Your task to perform on an android device: Search for Italian restaurants on Maps Image 0: 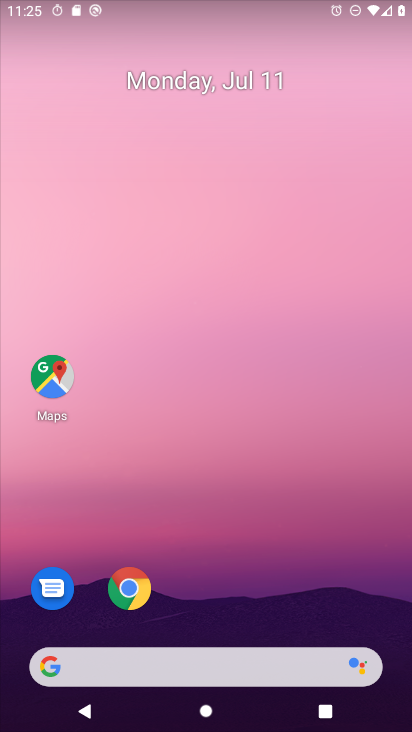
Step 0: click (61, 371)
Your task to perform on an android device: Search for Italian restaurants on Maps Image 1: 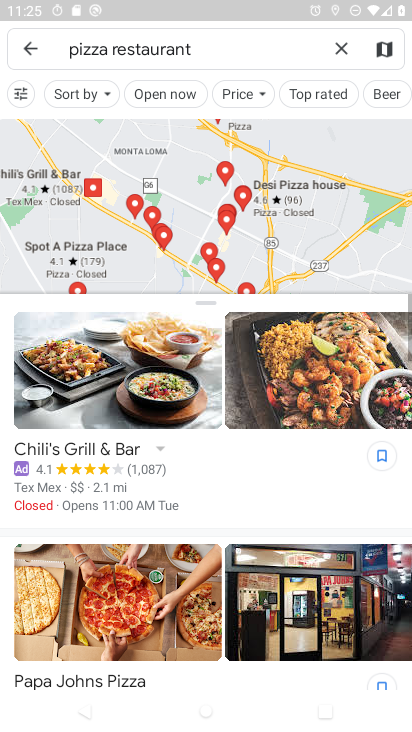
Step 1: click (340, 43)
Your task to perform on an android device: Search for Italian restaurants on Maps Image 2: 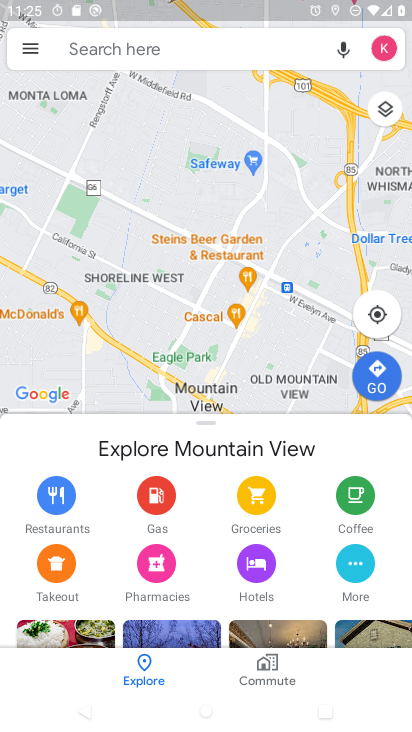
Step 2: click (135, 54)
Your task to perform on an android device: Search for Italian restaurants on Maps Image 3: 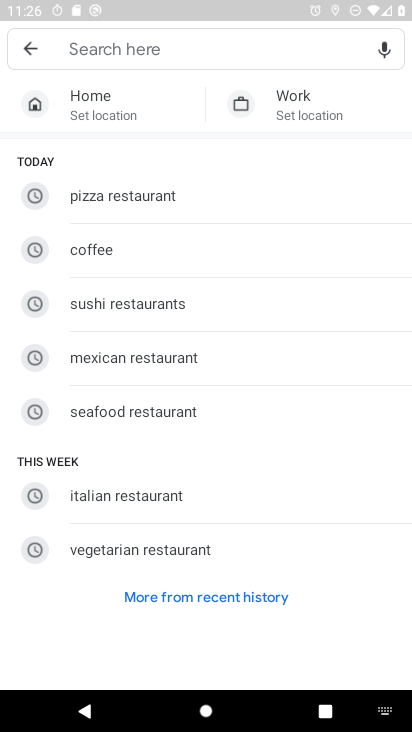
Step 3: click (92, 492)
Your task to perform on an android device: Search for Italian restaurants on Maps Image 4: 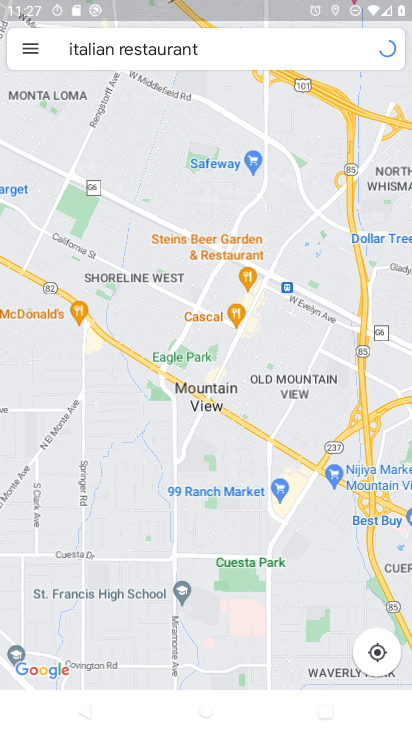
Step 4: task complete